Your task to perform on an android device: Go to wifi settings Image 0: 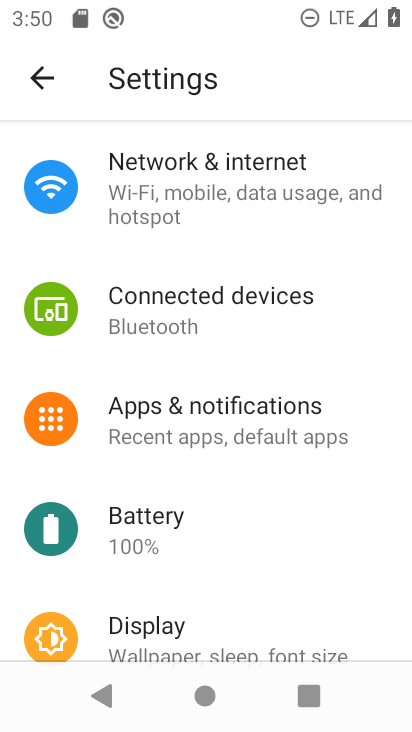
Step 0: press back button
Your task to perform on an android device: Go to wifi settings Image 1: 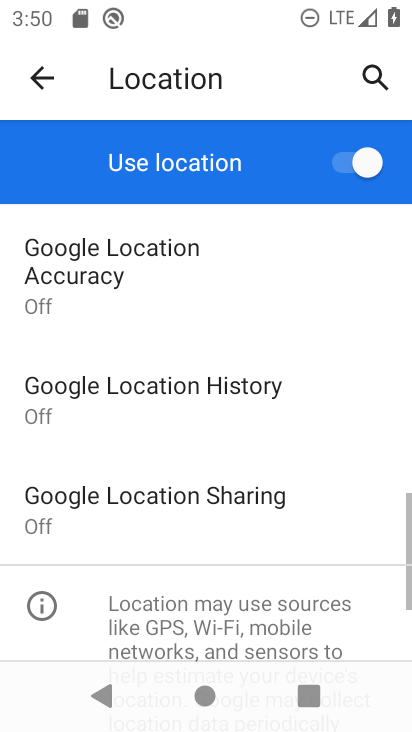
Step 1: drag from (132, 15) to (132, 520)
Your task to perform on an android device: Go to wifi settings Image 2: 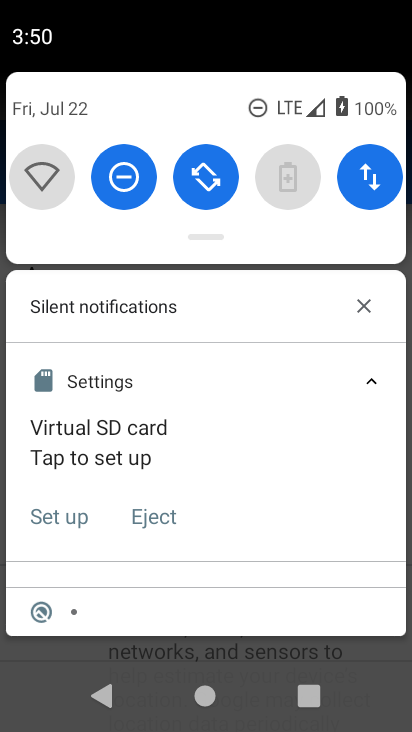
Step 2: click (53, 168)
Your task to perform on an android device: Go to wifi settings Image 3: 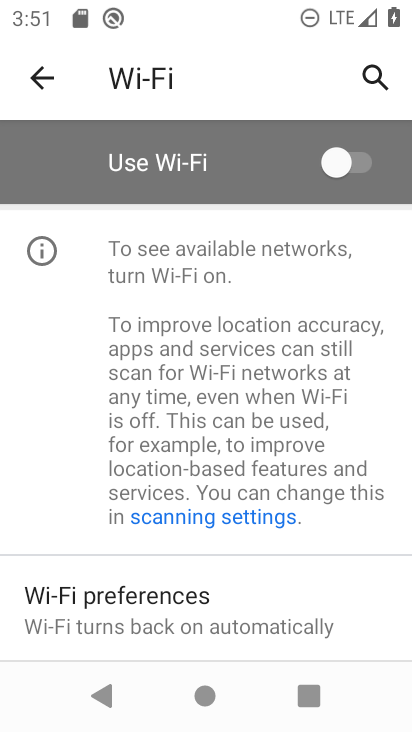
Step 3: task complete